Your task to perform on an android device: install app "Google Play services" Image 0: 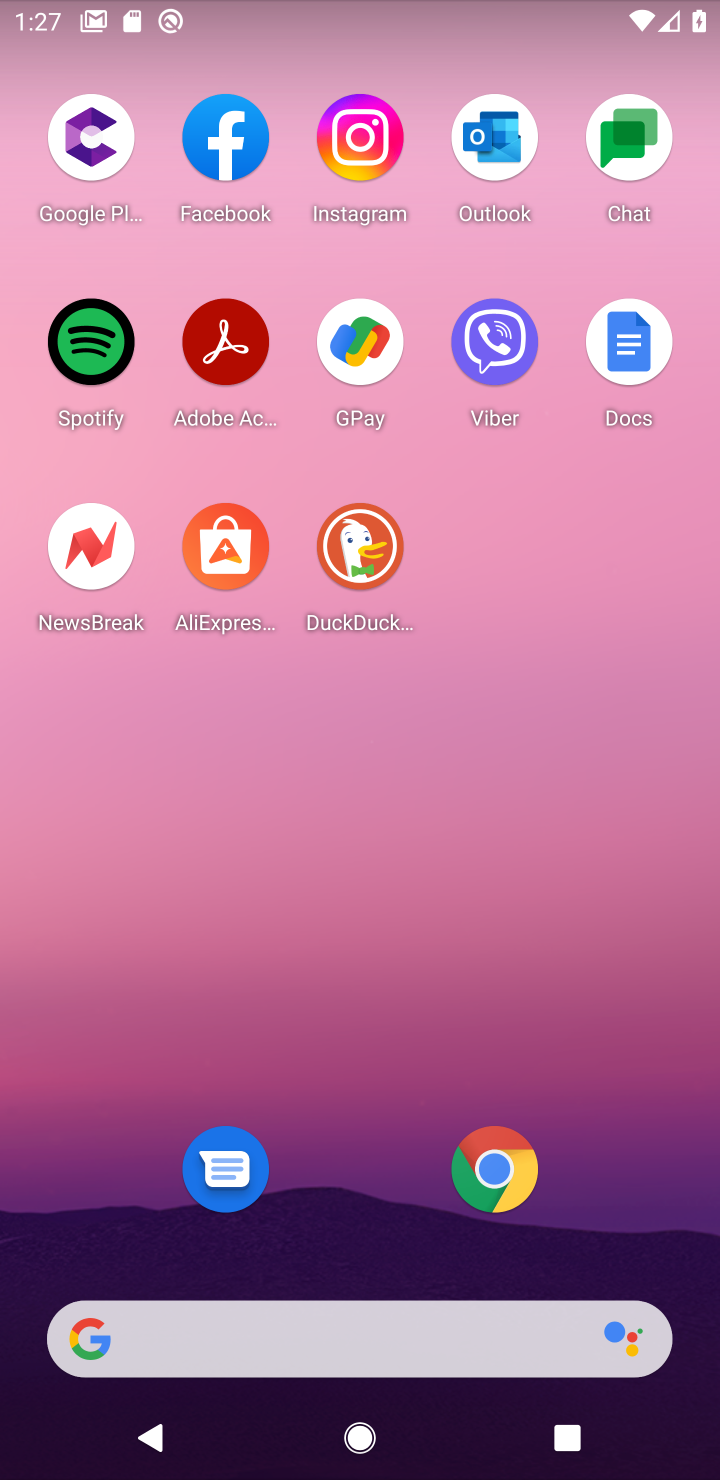
Step 0: drag from (339, 1214) to (466, 109)
Your task to perform on an android device: install app "Google Play services" Image 1: 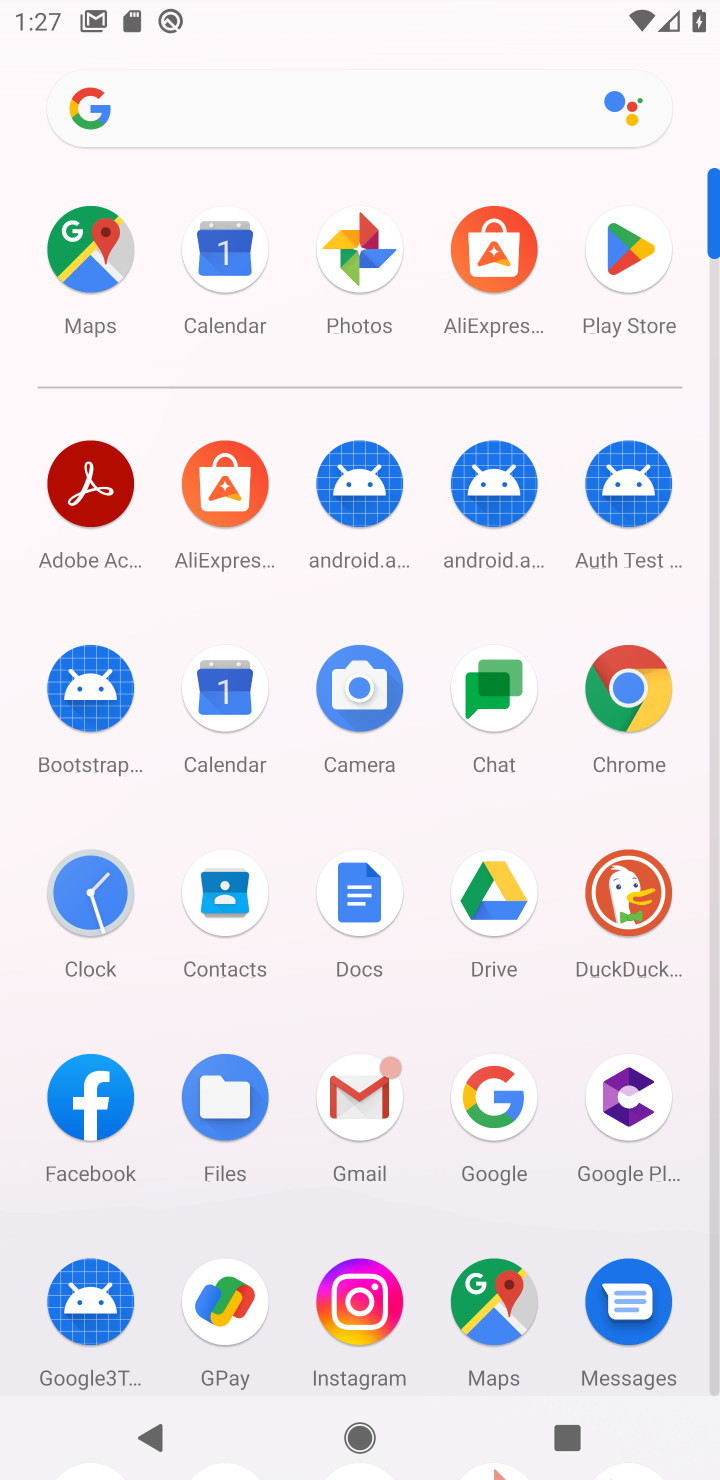
Step 1: click (624, 293)
Your task to perform on an android device: install app "Google Play services" Image 2: 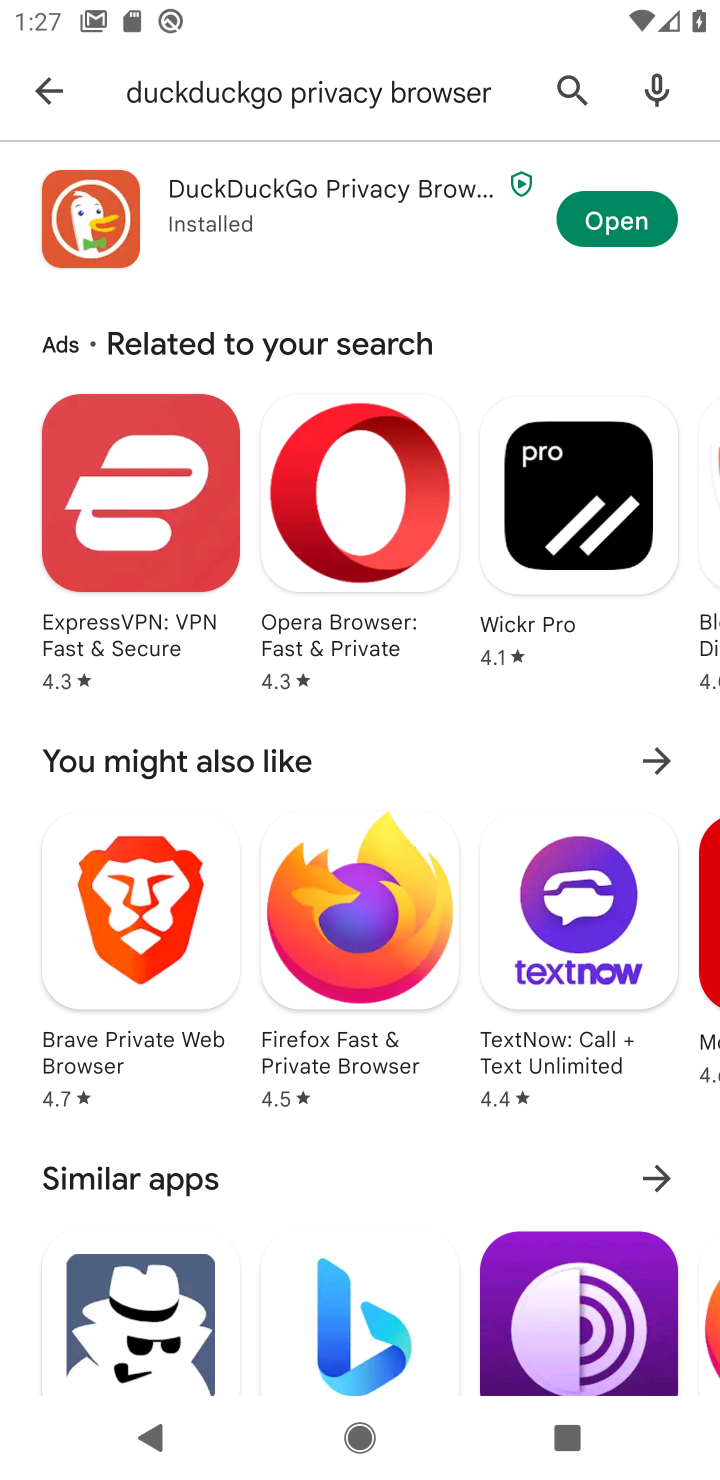
Step 2: click (43, 92)
Your task to perform on an android device: install app "Google Play services" Image 3: 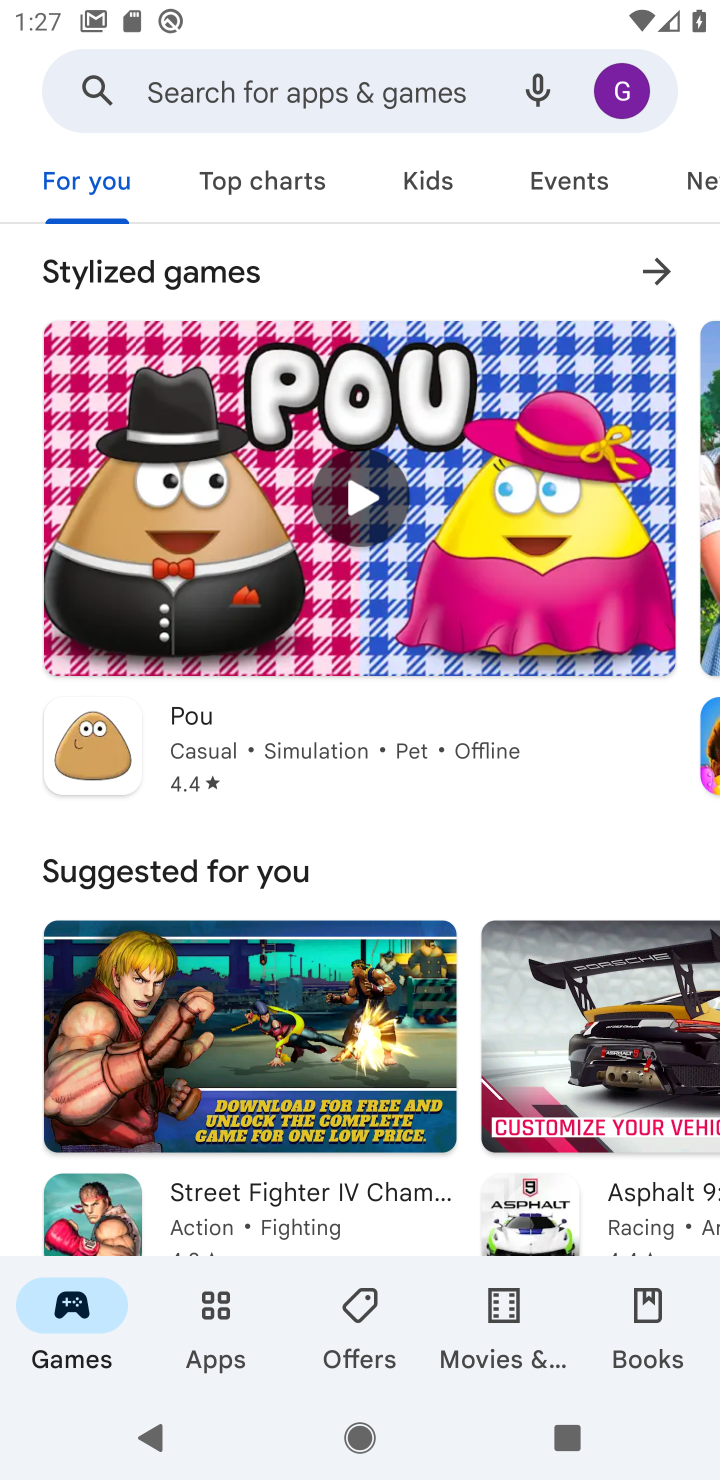
Step 3: click (195, 92)
Your task to perform on an android device: install app "Google Play services" Image 4: 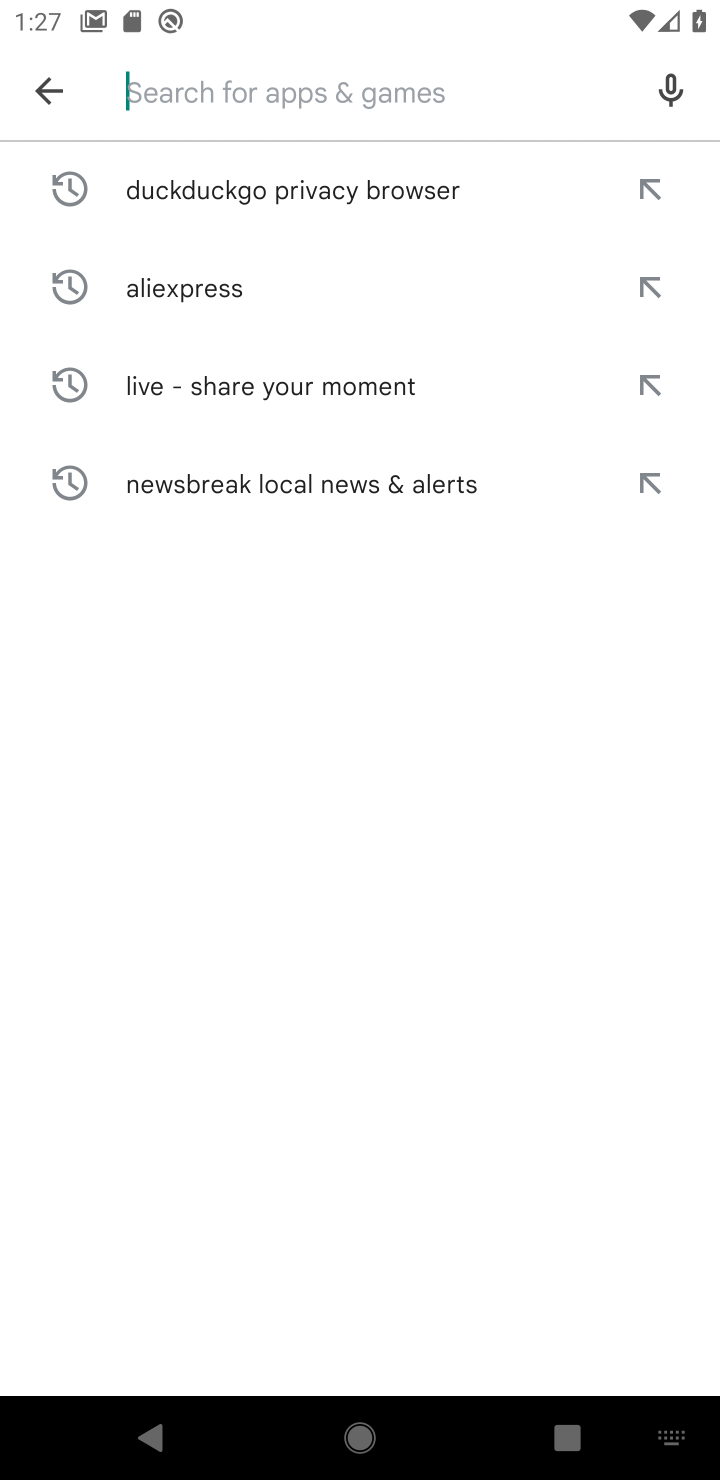
Step 4: type "Google Play services"
Your task to perform on an android device: install app "Google Play services" Image 5: 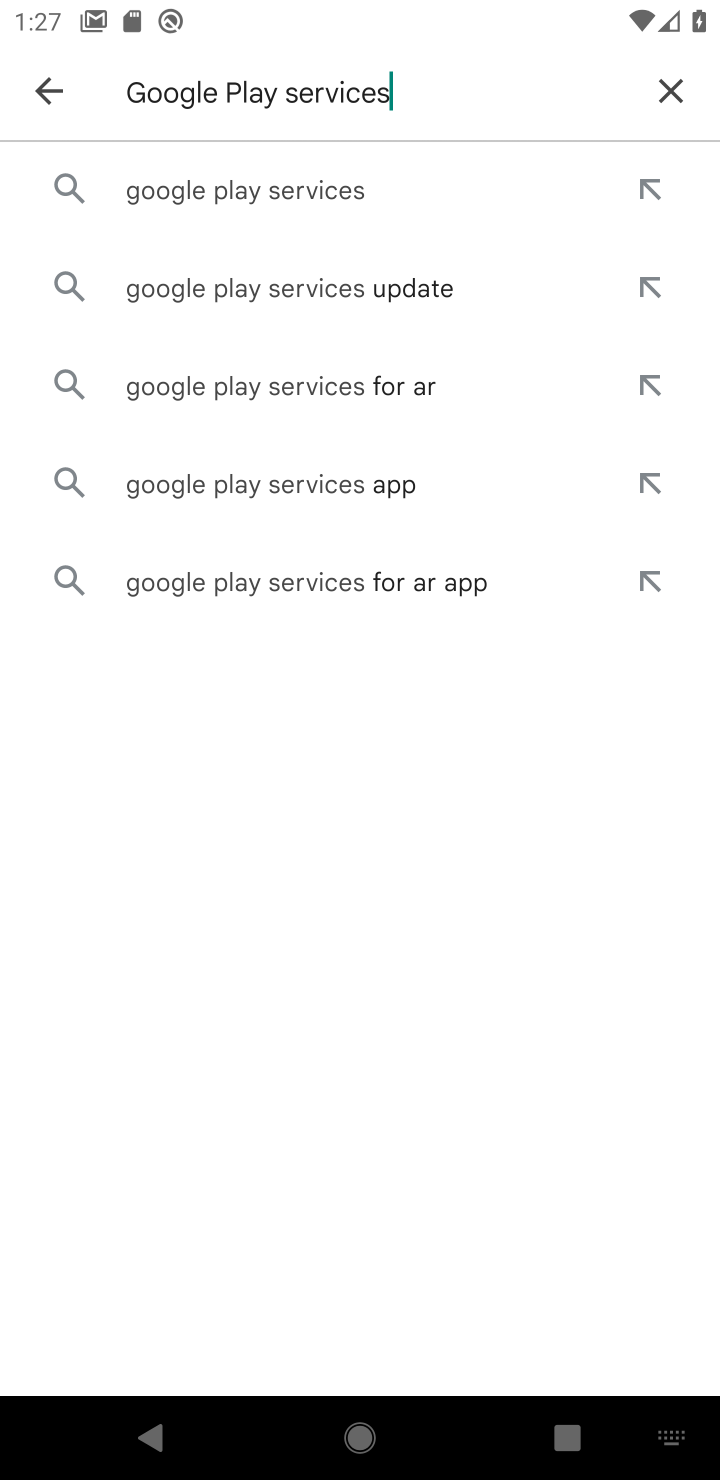
Step 5: click (246, 190)
Your task to perform on an android device: install app "Google Play services" Image 6: 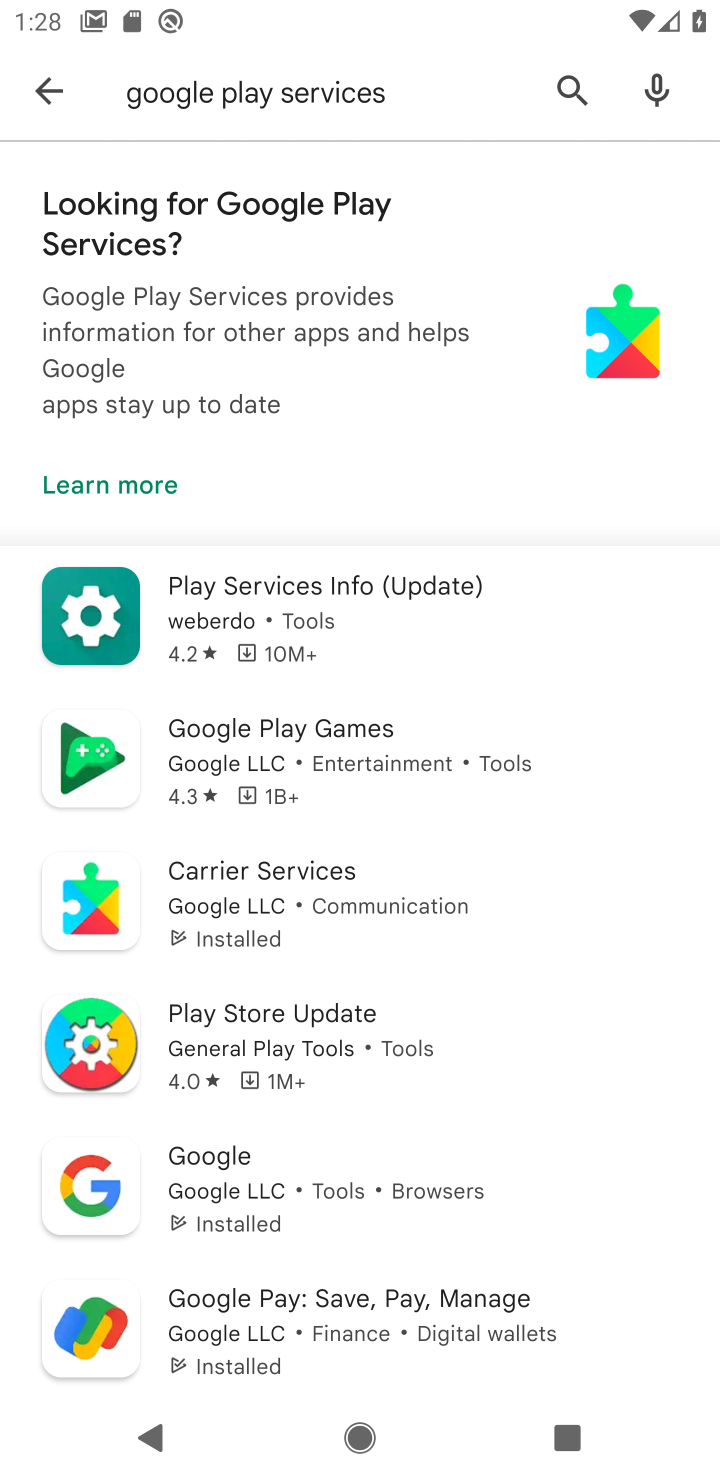
Step 6: task complete